Your task to perform on an android device: Open maps Image 0: 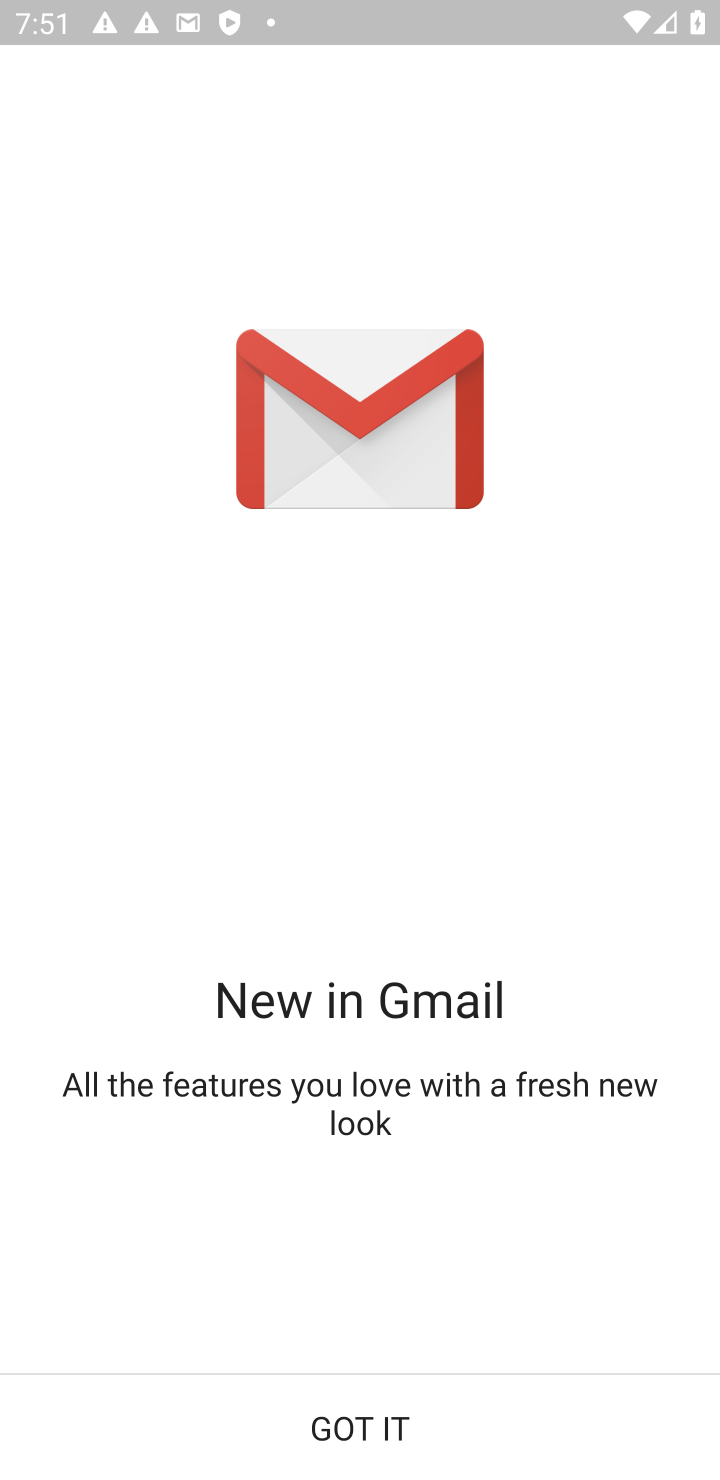
Step 0: press home button
Your task to perform on an android device: Open maps Image 1: 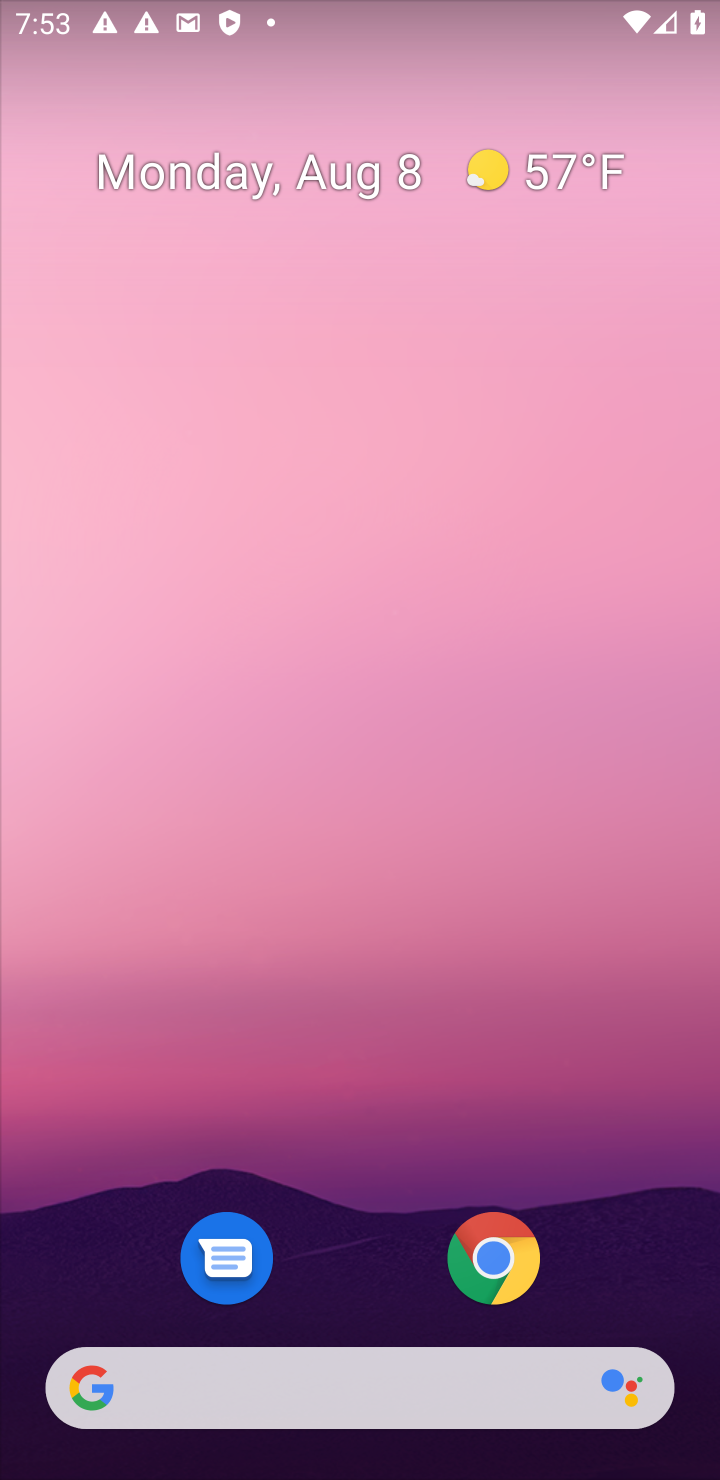
Step 1: drag from (404, 943) to (395, 283)
Your task to perform on an android device: Open maps Image 2: 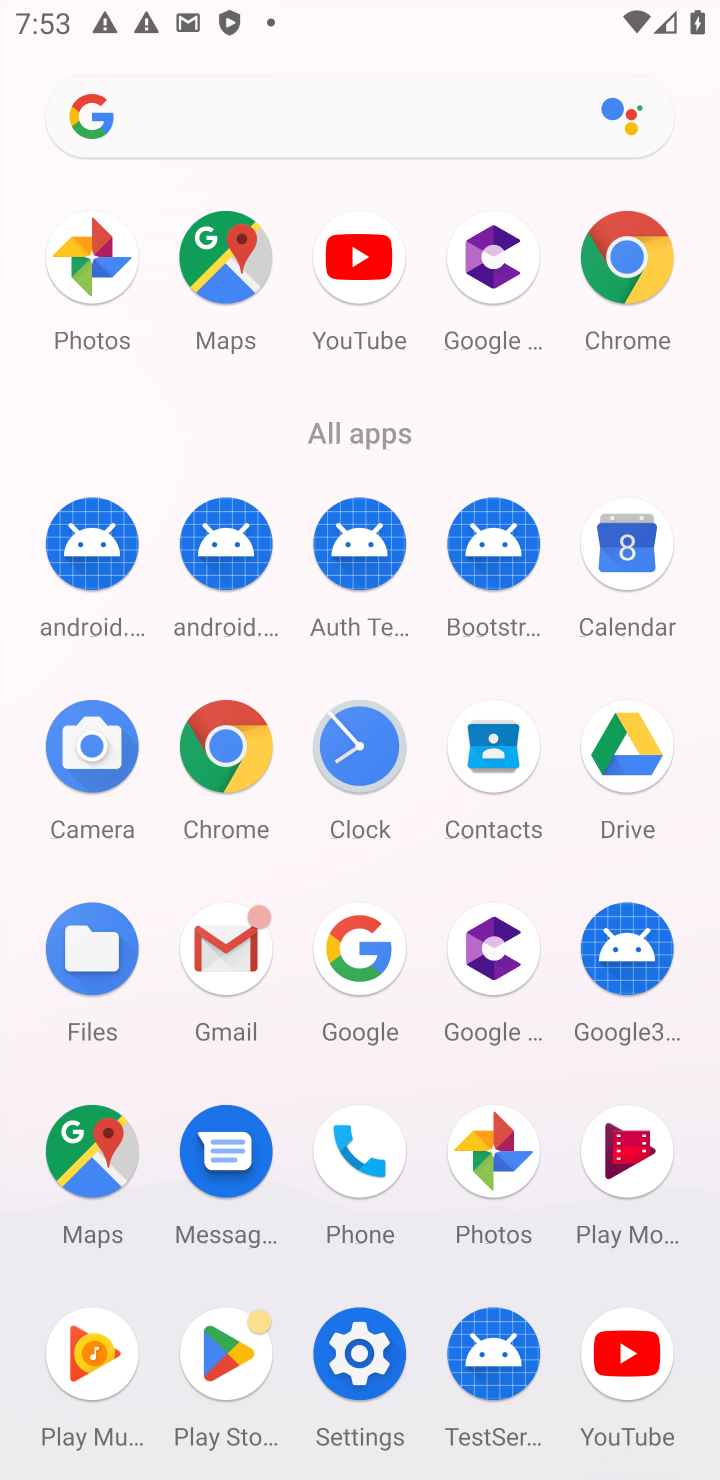
Step 2: click (223, 269)
Your task to perform on an android device: Open maps Image 3: 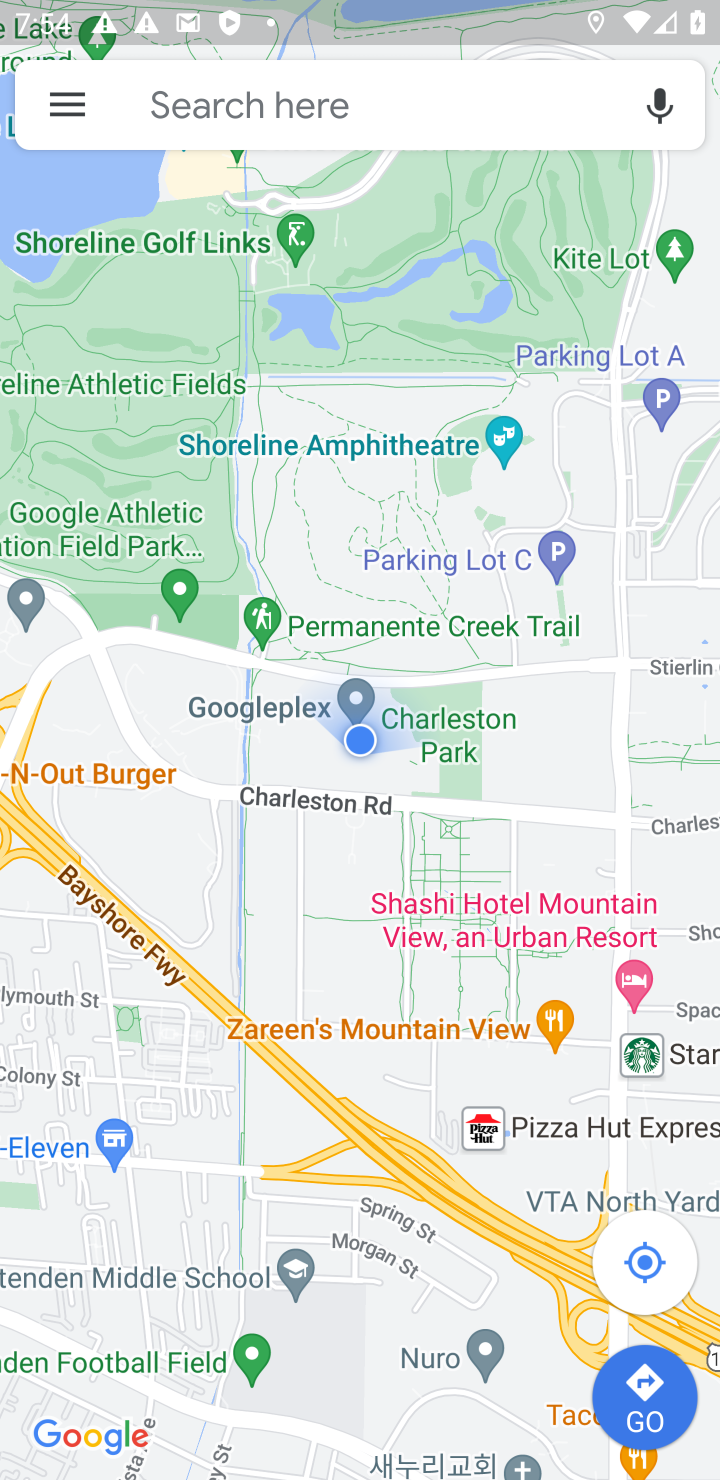
Step 3: task complete